Your task to perform on an android device: open app "Google Home" (install if not already installed) Image 0: 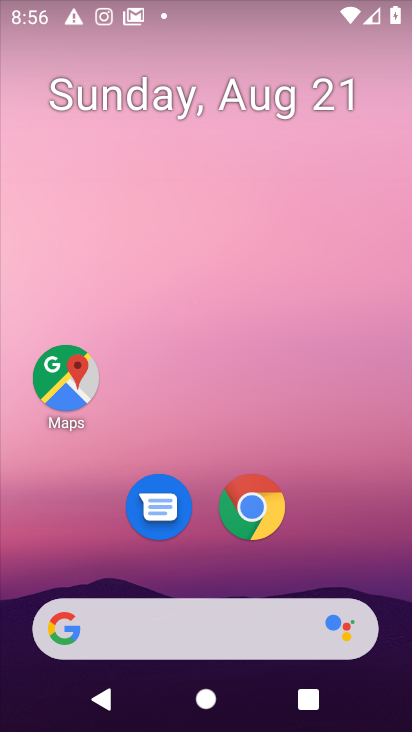
Step 0: drag from (201, 539) to (190, 131)
Your task to perform on an android device: open app "Google Home" (install if not already installed) Image 1: 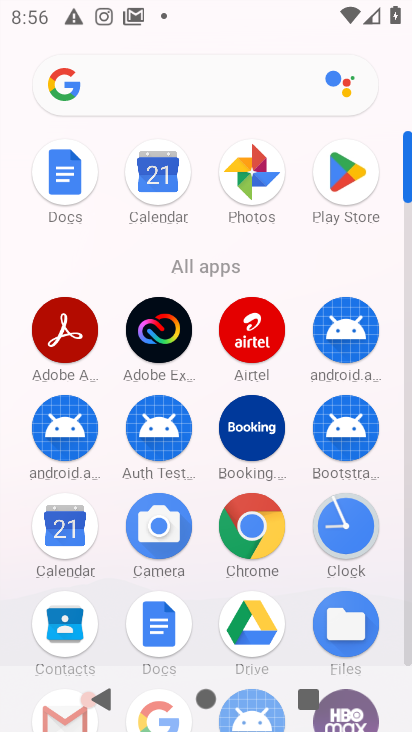
Step 1: click (351, 193)
Your task to perform on an android device: open app "Google Home" (install if not already installed) Image 2: 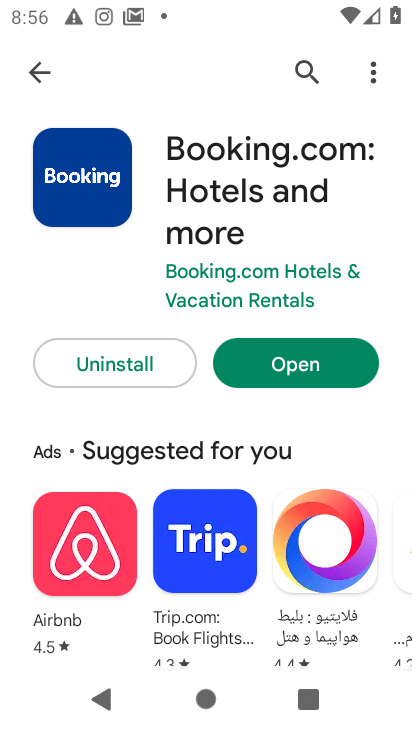
Step 2: click (45, 74)
Your task to perform on an android device: open app "Google Home" (install if not already installed) Image 3: 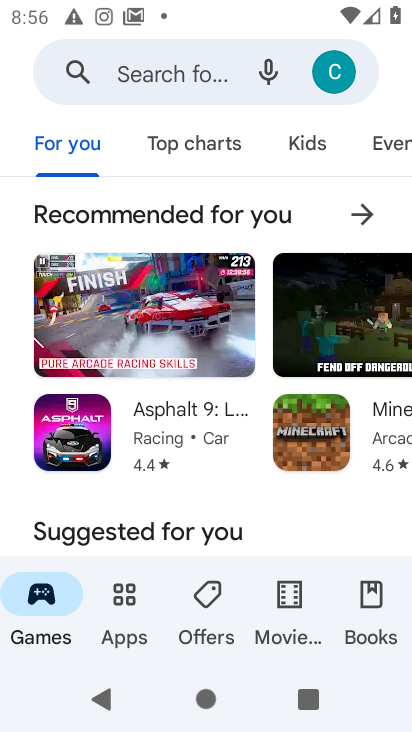
Step 3: click (165, 80)
Your task to perform on an android device: open app "Google Home" (install if not already installed) Image 4: 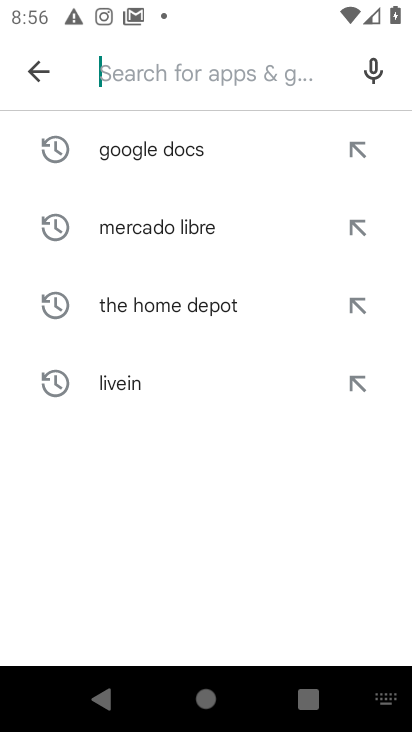
Step 4: type "Google Home"
Your task to perform on an android device: open app "Google Home" (install if not already installed) Image 5: 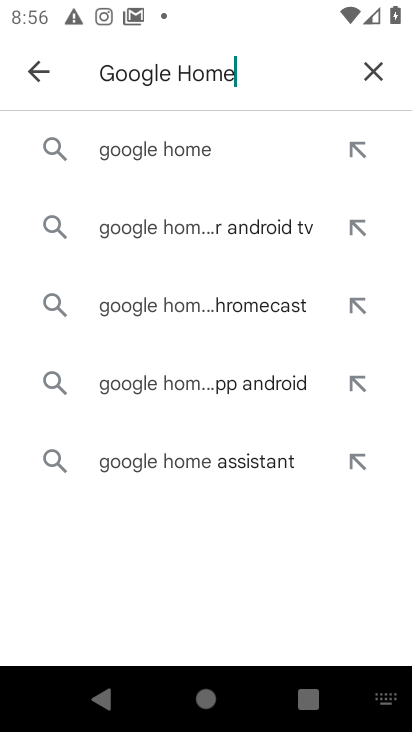
Step 5: click (127, 151)
Your task to perform on an android device: open app "Google Home" (install if not already installed) Image 6: 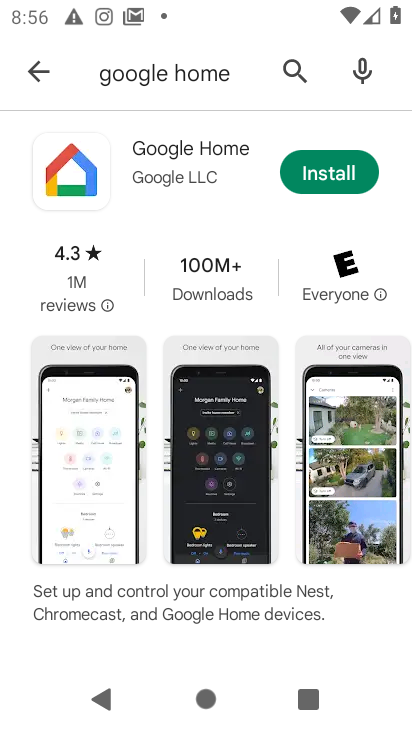
Step 6: click (342, 177)
Your task to perform on an android device: open app "Google Home" (install if not already installed) Image 7: 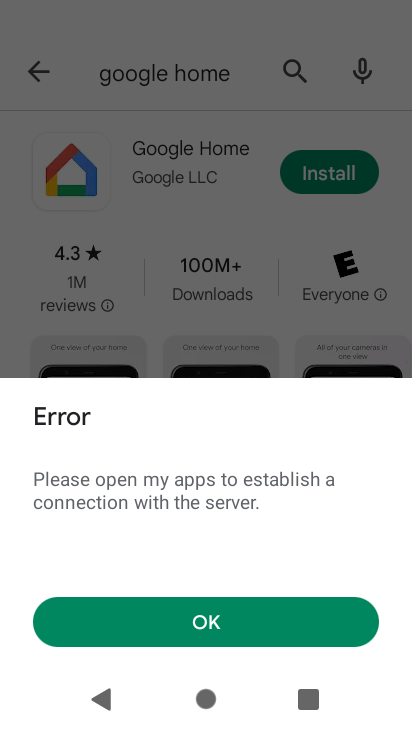
Step 7: click (190, 620)
Your task to perform on an android device: open app "Google Home" (install if not already installed) Image 8: 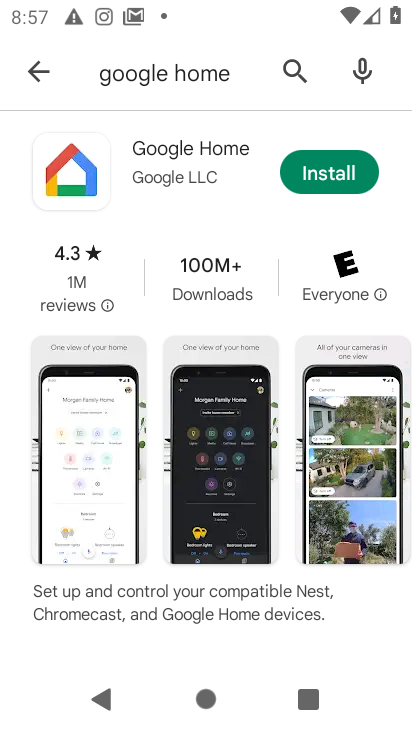
Step 8: click (328, 174)
Your task to perform on an android device: open app "Google Home" (install if not already installed) Image 9: 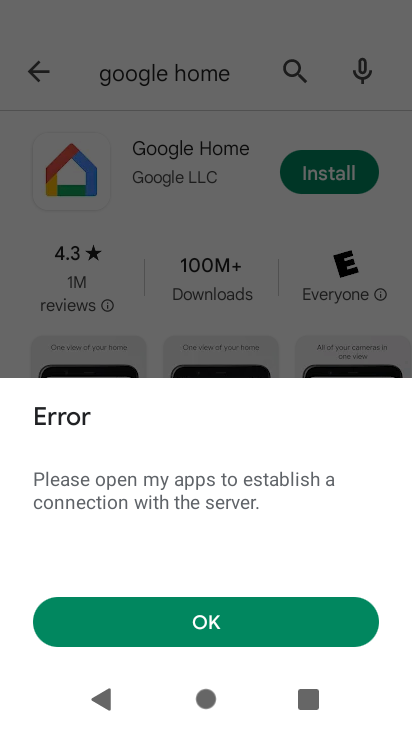
Step 9: click (213, 630)
Your task to perform on an android device: open app "Google Home" (install if not already installed) Image 10: 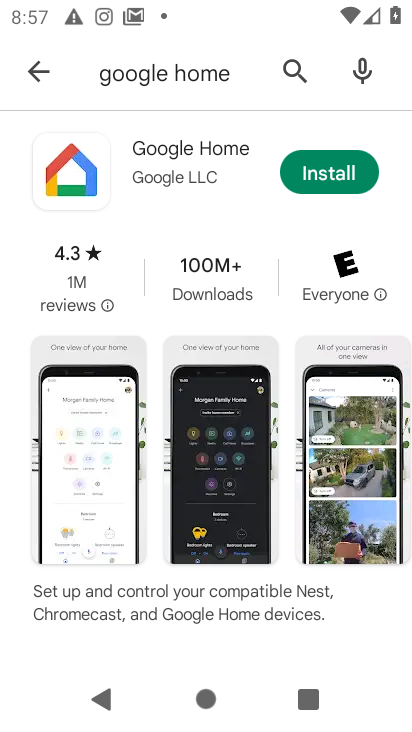
Step 10: task complete